Your task to perform on an android device: Check the news Image 0: 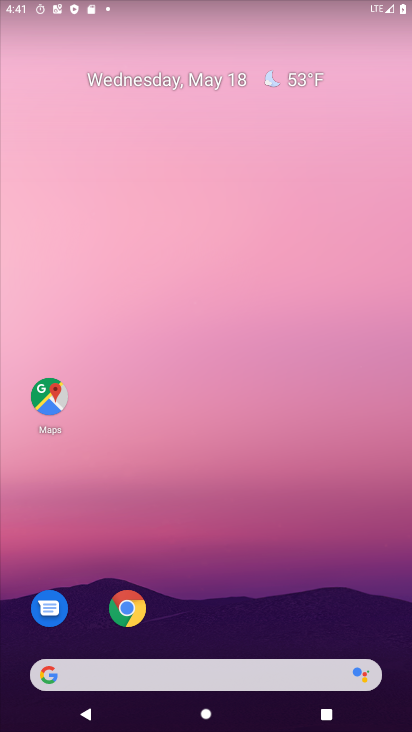
Step 0: drag from (219, 698) to (270, 56)
Your task to perform on an android device: Check the news Image 1: 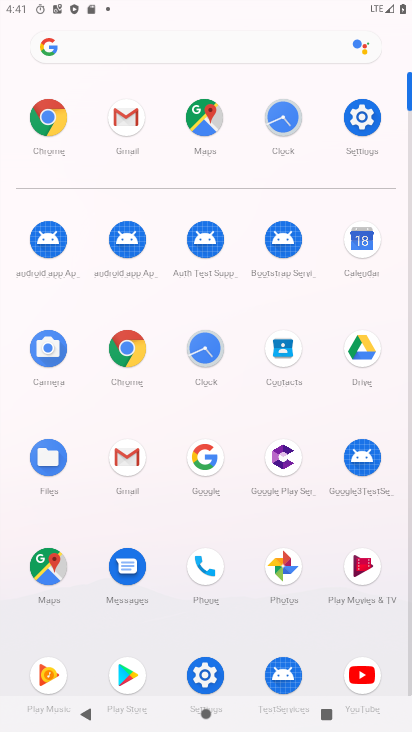
Step 1: click (129, 357)
Your task to perform on an android device: Check the news Image 2: 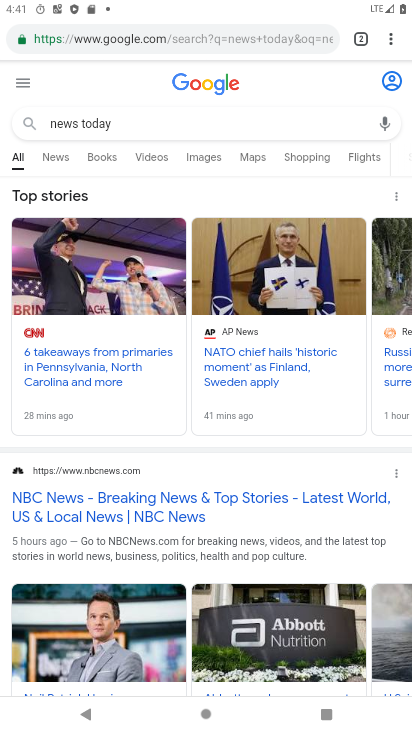
Step 2: click (214, 37)
Your task to perform on an android device: Check the news Image 3: 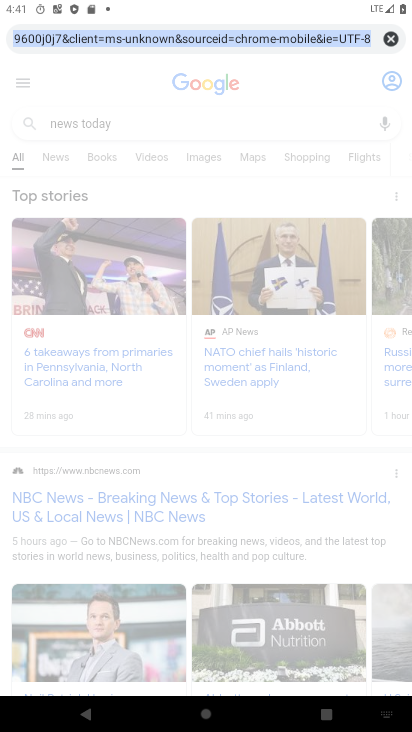
Step 3: click (388, 37)
Your task to perform on an android device: Check the news Image 4: 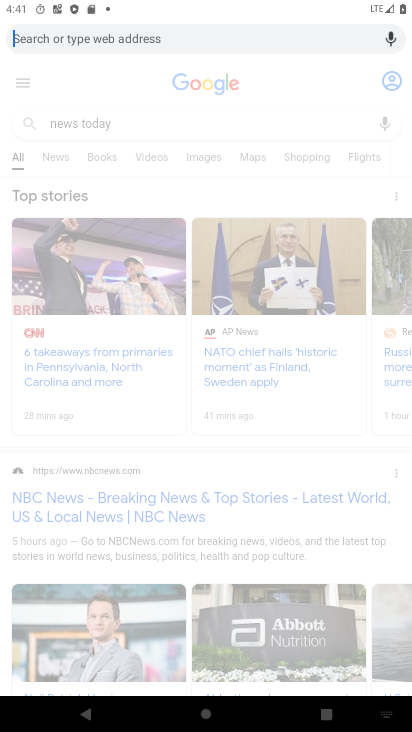
Step 4: type "check the news"
Your task to perform on an android device: Check the news Image 5: 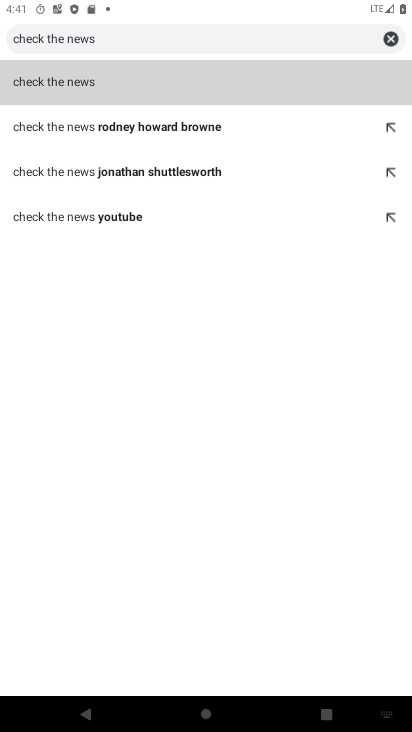
Step 5: click (173, 85)
Your task to perform on an android device: Check the news Image 6: 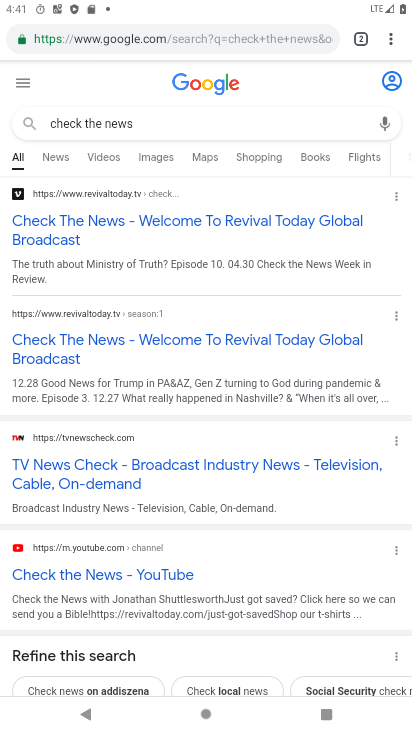
Step 6: task complete